Your task to perform on an android device: Open calendar and show me the first week of next month Image 0: 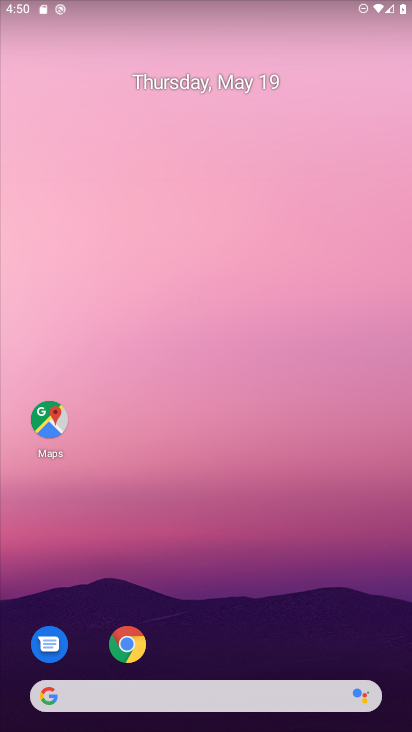
Step 0: press home button
Your task to perform on an android device: Open calendar and show me the first week of next month Image 1: 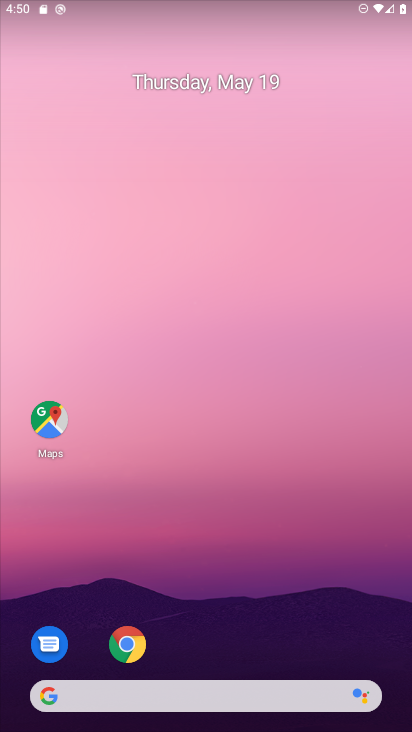
Step 1: drag from (269, 613) to (284, 173)
Your task to perform on an android device: Open calendar and show me the first week of next month Image 2: 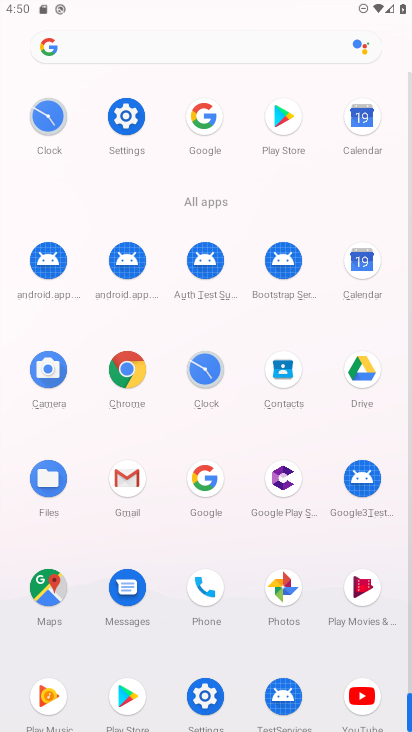
Step 2: click (372, 268)
Your task to perform on an android device: Open calendar and show me the first week of next month Image 3: 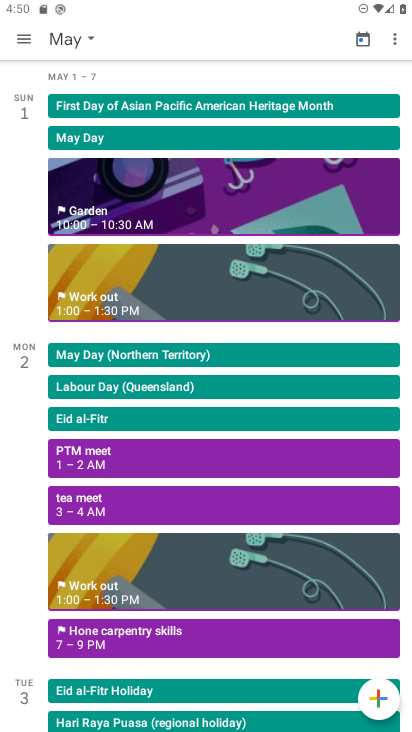
Step 3: click (102, 29)
Your task to perform on an android device: Open calendar and show me the first week of next month Image 4: 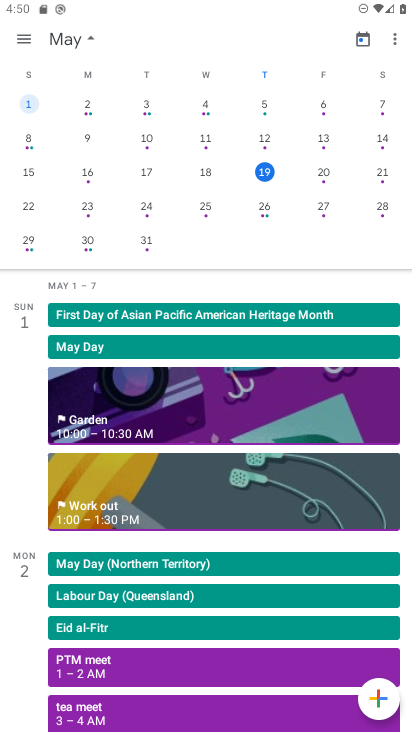
Step 4: task complete